Your task to perform on an android device: Do I have any events tomorrow? Image 0: 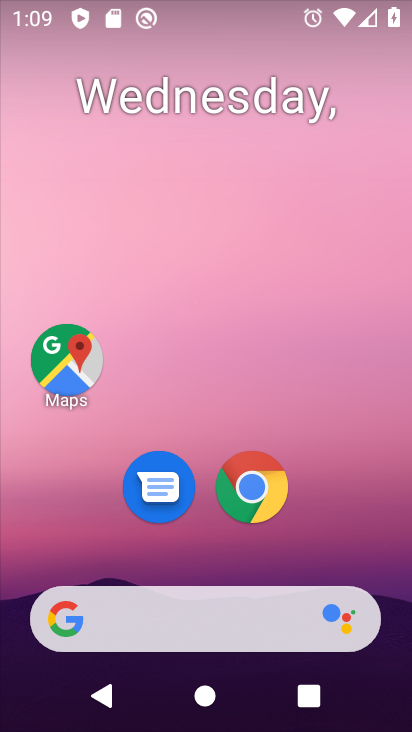
Step 0: drag from (374, 477) to (320, 75)
Your task to perform on an android device: Do I have any events tomorrow? Image 1: 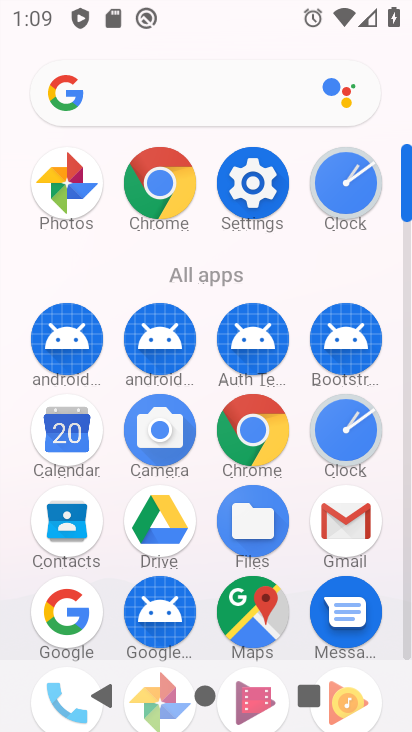
Step 1: click (49, 446)
Your task to perform on an android device: Do I have any events tomorrow? Image 2: 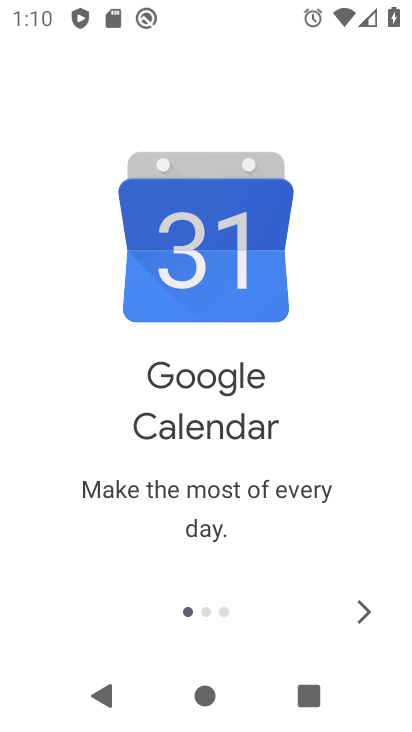
Step 2: click (368, 607)
Your task to perform on an android device: Do I have any events tomorrow? Image 3: 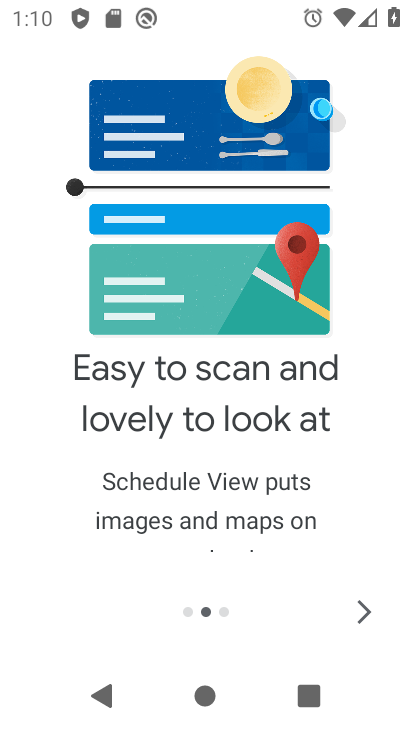
Step 3: click (368, 607)
Your task to perform on an android device: Do I have any events tomorrow? Image 4: 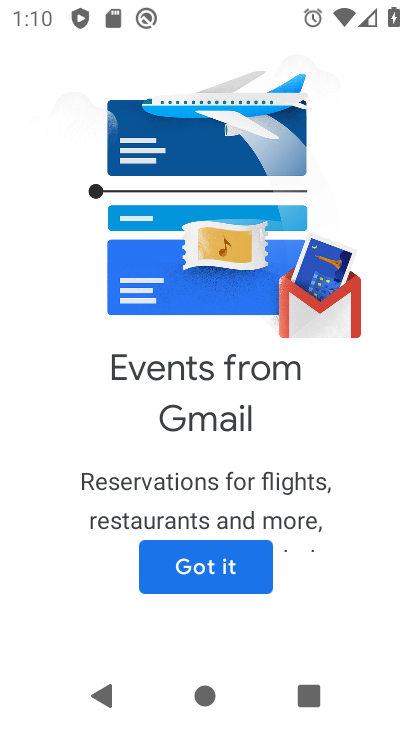
Step 4: click (368, 607)
Your task to perform on an android device: Do I have any events tomorrow? Image 5: 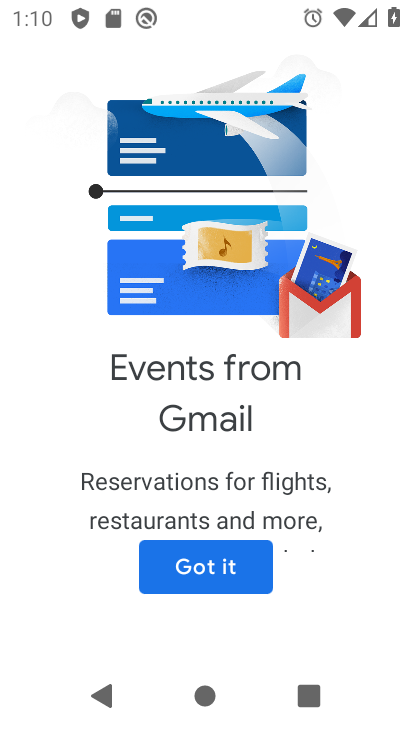
Step 5: click (199, 575)
Your task to perform on an android device: Do I have any events tomorrow? Image 6: 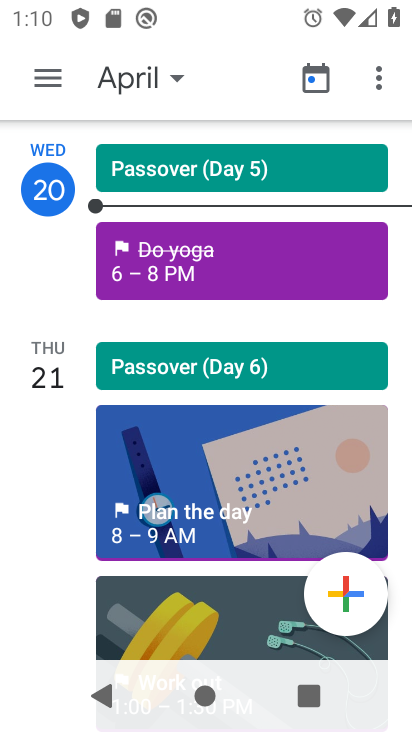
Step 6: click (53, 75)
Your task to perform on an android device: Do I have any events tomorrow? Image 7: 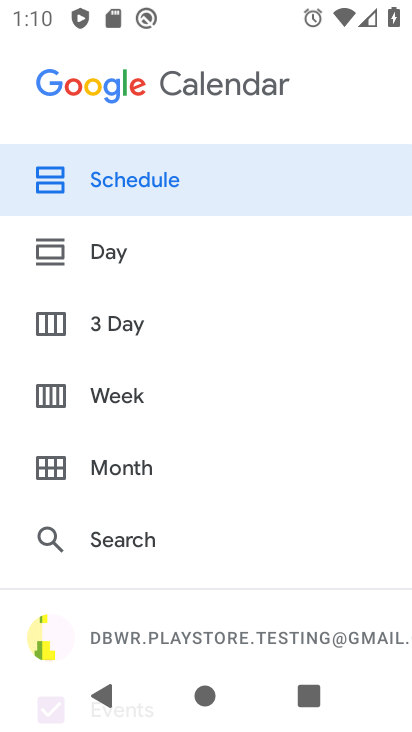
Step 7: drag from (261, 553) to (258, 150)
Your task to perform on an android device: Do I have any events tomorrow? Image 8: 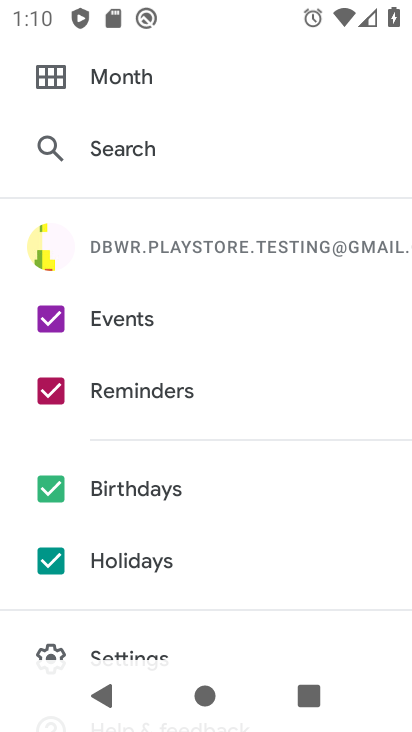
Step 8: click (56, 557)
Your task to perform on an android device: Do I have any events tomorrow? Image 9: 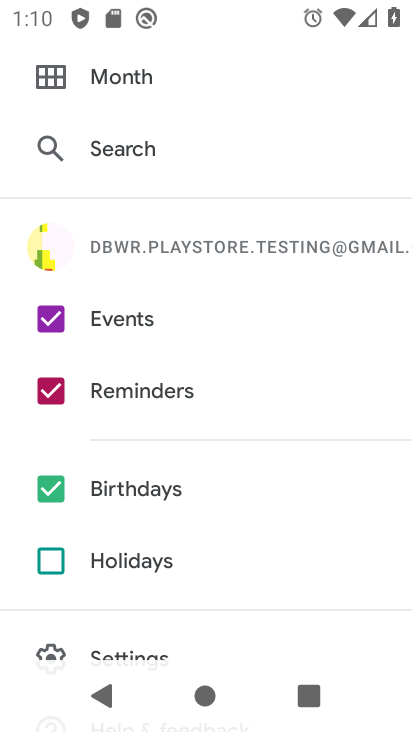
Step 9: click (60, 499)
Your task to perform on an android device: Do I have any events tomorrow? Image 10: 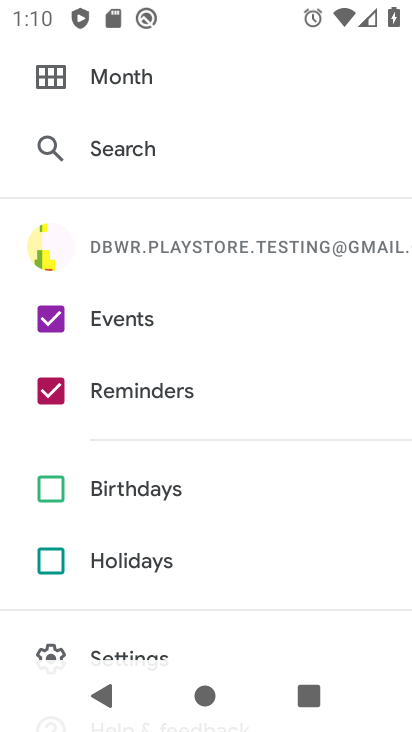
Step 10: click (60, 395)
Your task to perform on an android device: Do I have any events tomorrow? Image 11: 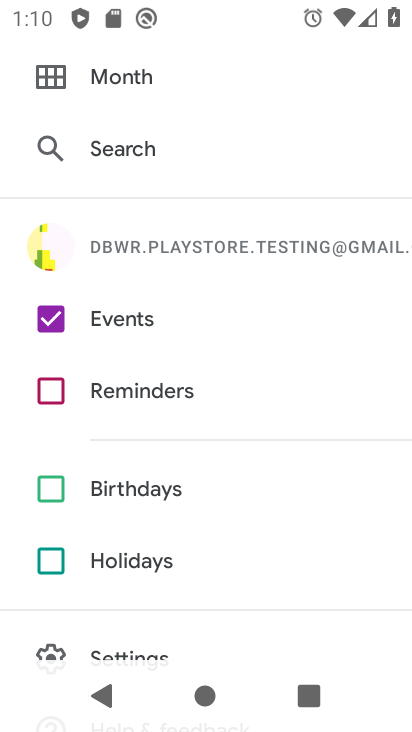
Step 11: drag from (212, 137) to (216, 604)
Your task to perform on an android device: Do I have any events tomorrow? Image 12: 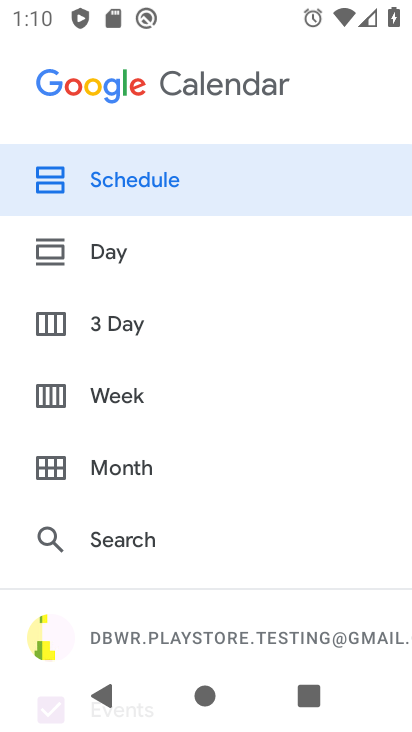
Step 12: click (137, 400)
Your task to perform on an android device: Do I have any events tomorrow? Image 13: 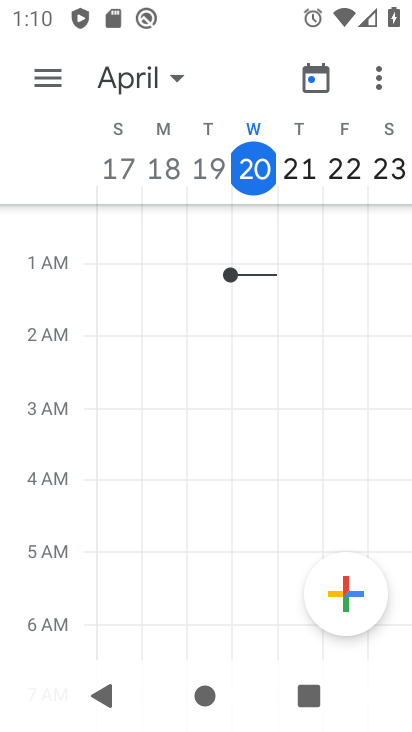
Step 13: click (307, 175)
Your task to perform on an android device: Do I have any events tomorrow? Image 14: 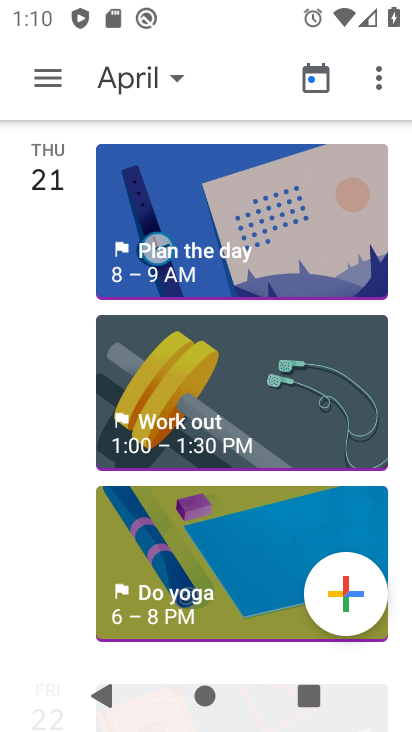
Step 14: task complete